Your task to perform on an android device: Go to settings Image 0: 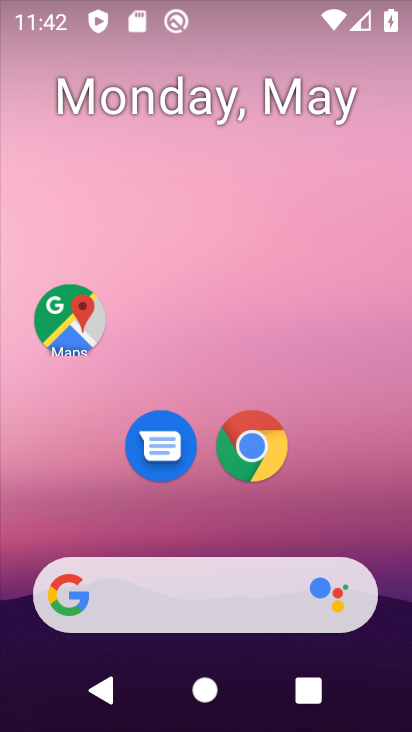
Step 0: drag from (144, 553) to (246, 62)
Your task to perform on an android device: Go to settings Image 1: 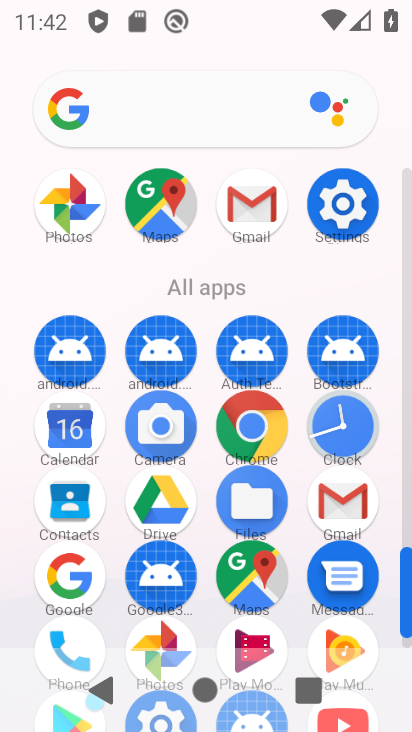
Step 1: click (333, 213)
Your task to perform on an android device: Go to settings Image 2: 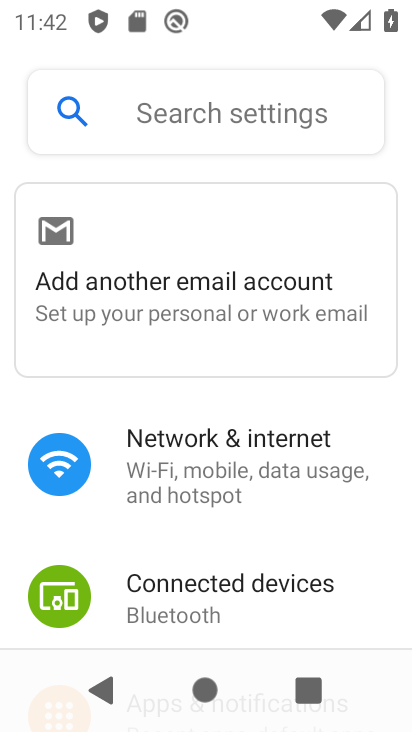
Step 2: task complete